Your task to perform on an android device: open a new tab in the chrome app Image 0: 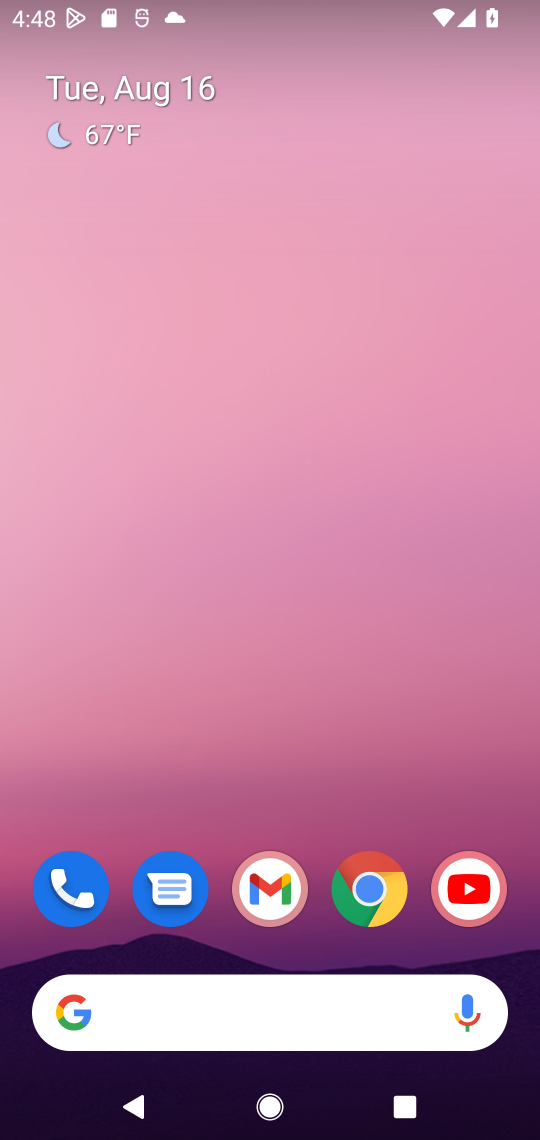
Step 0: click (374, 877)
Your task to perform on an android device: open a new tab in the chrome app Image 1: 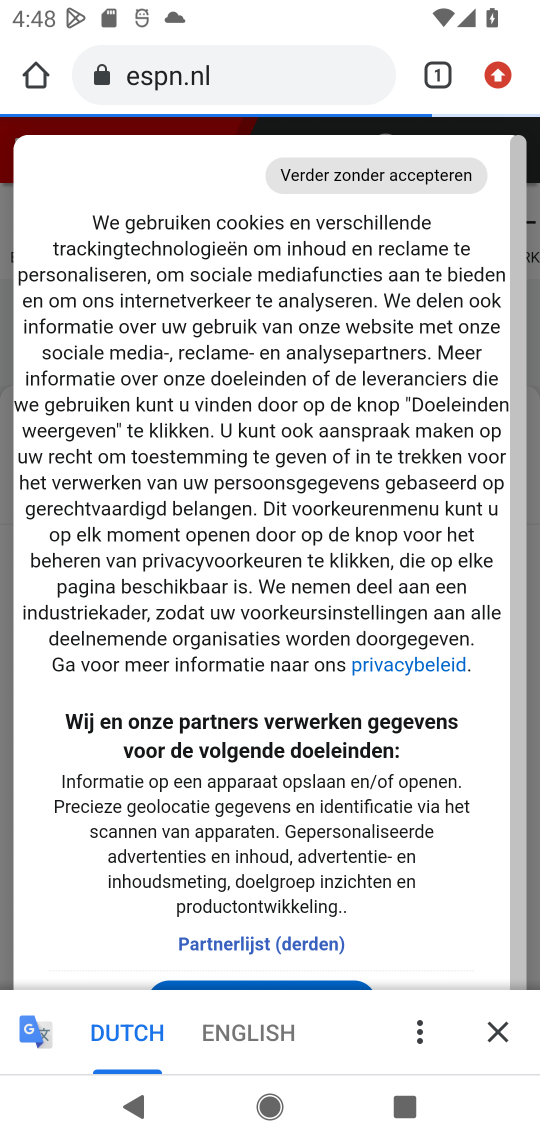
Step 1: click (438, 67)
Your task to perform on an android device: open a new tab in the chrome app Image 2: 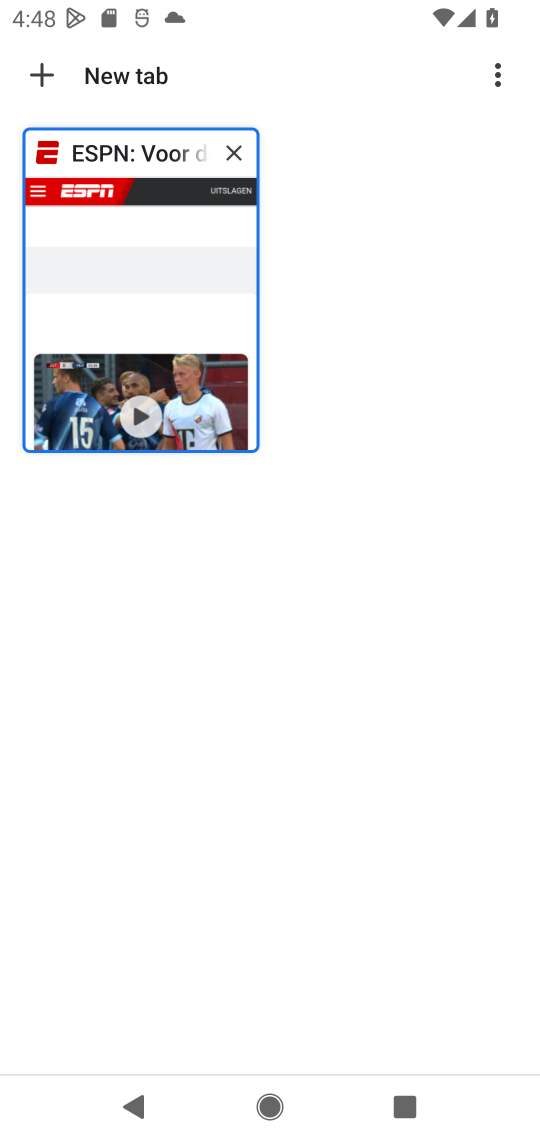
Step 2: click (35, 85)
Your task to perform on an android device: open a new tab in the chrome app Image 3: 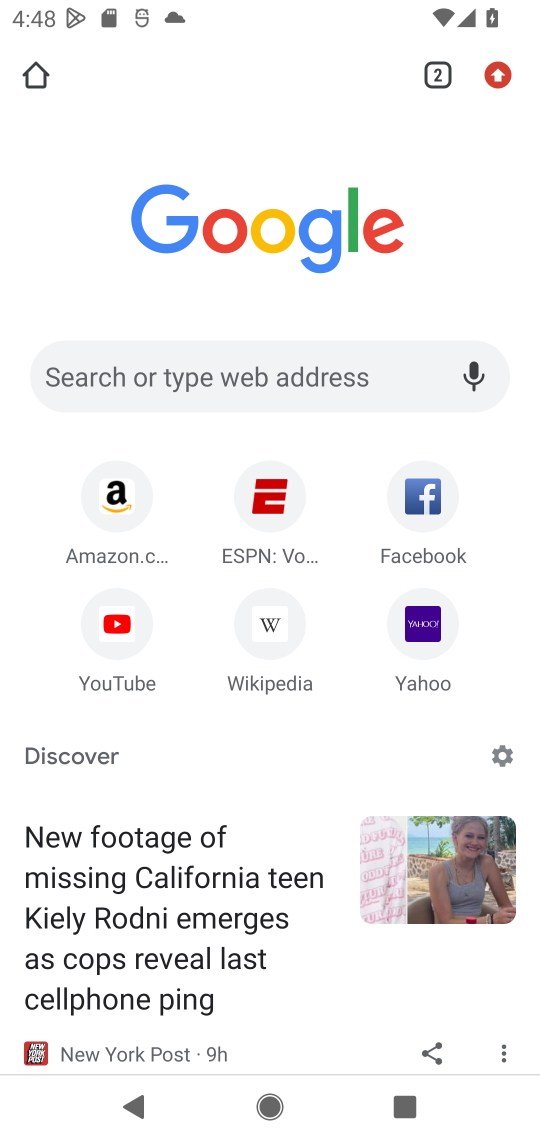
Step 3: task complete